Your task to perform on an android device: Go to wifi settings Image 0: 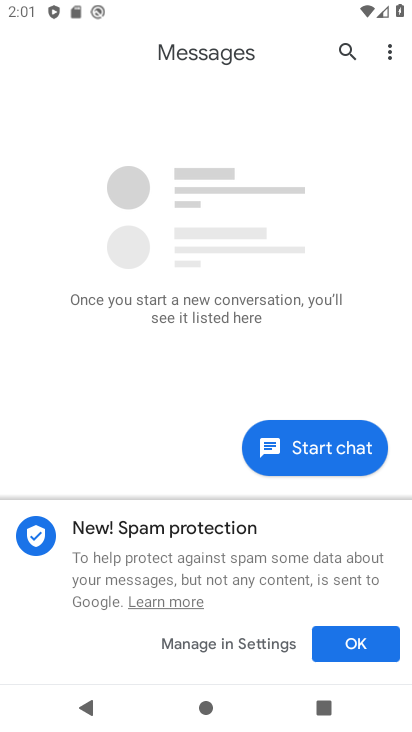
Step 0: press home button
Your task to perform on an android device: Go to wifi settings Image 1: 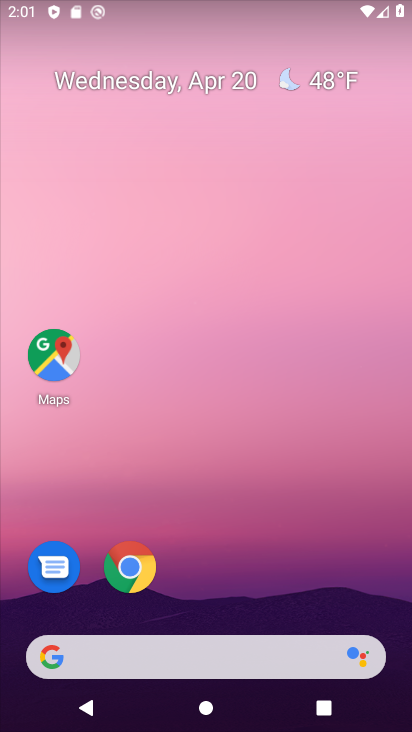
Step 1: drag from (257, 577) to (238, 88)
Your task to perform on an android device: Go to wifi settings Image 2: 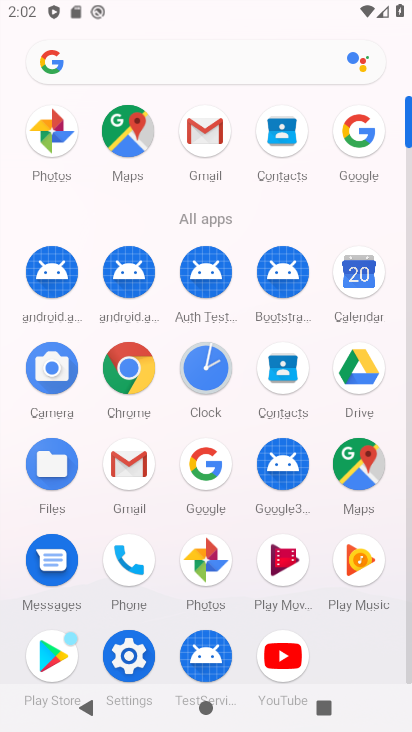
Step 2: click (137, 654)
Your task to perform on an android device: Go to wifi settings Image 3: 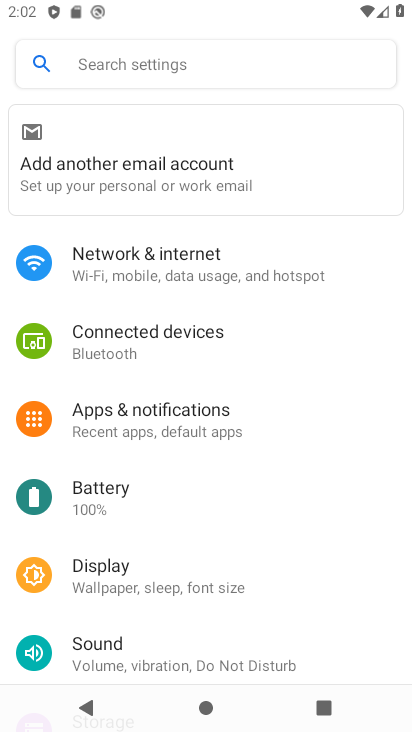
Step 3: click (228, 266)
Your task to perform on an android device: Go to wifi settings Image 4: 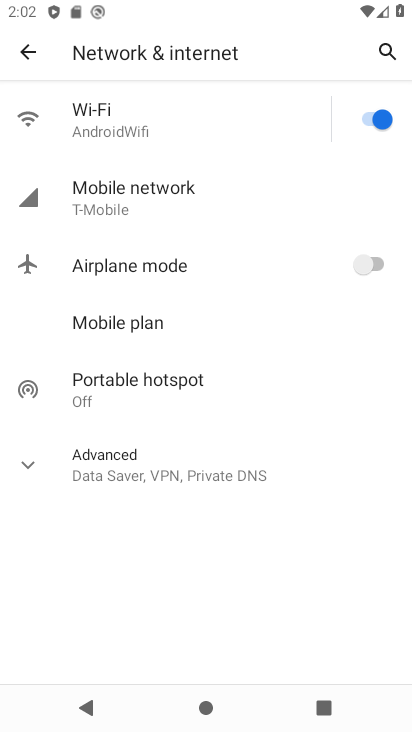
Step 4: click (126, 123)
Your task to perform on an android device: Go to wifi settings Image 5: 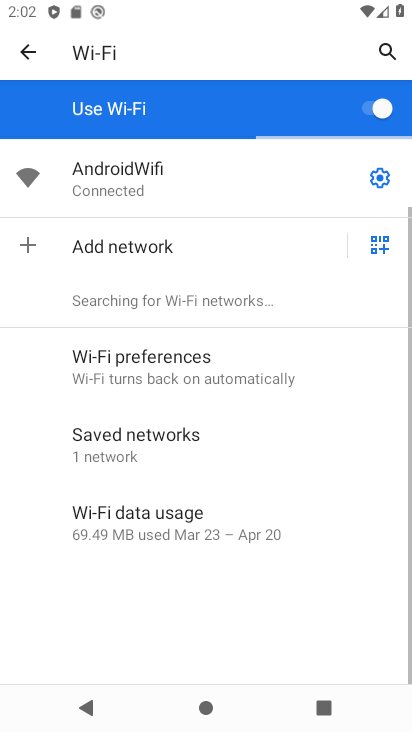
Step 5: click (144, 187)
Your task to perform on an android device: Go to wifi settings Image 6: 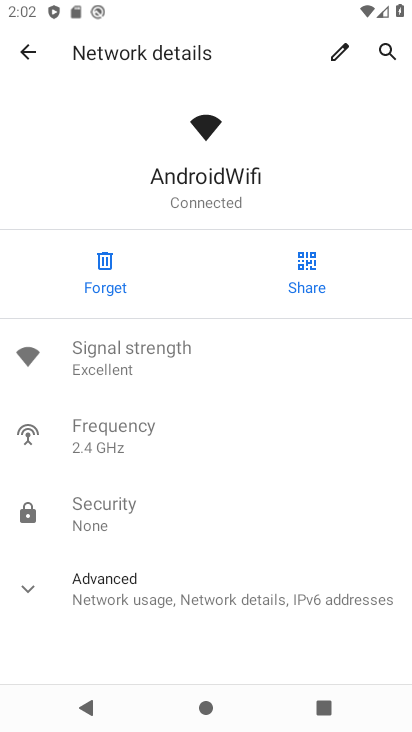
Step 6: task complete